Your task to perform on an android device: Is it going to rain tomorrow? Image 0: 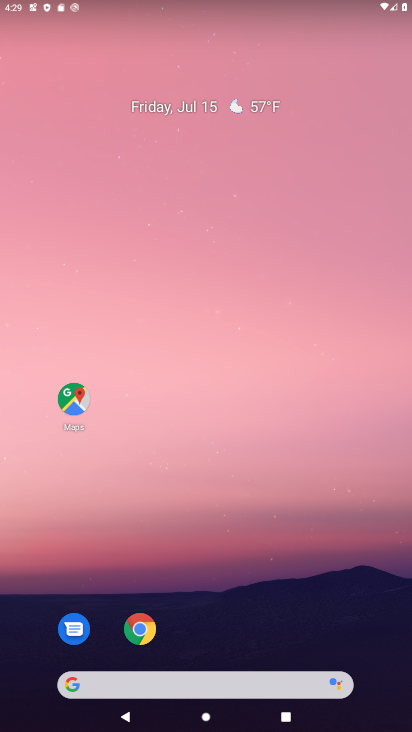
Step 0: click (73, 682)
Your task to perform on an android device: Is it going to rain tomorrow? Image 1: 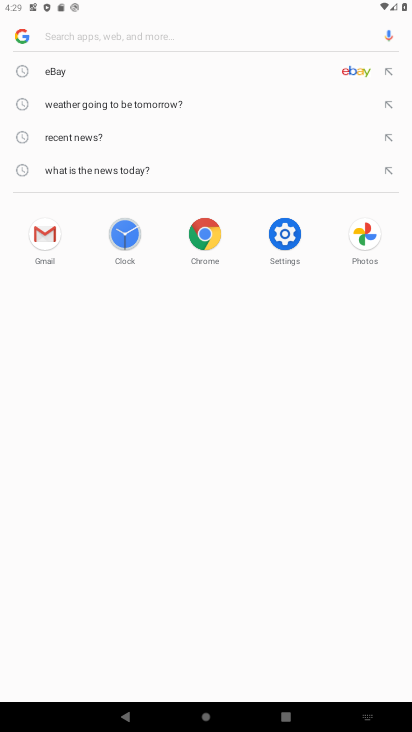
Step 1: type "rain tomorrow?"
Your task to perform on an android device: Is it going to rain tomorrow? Image 2: 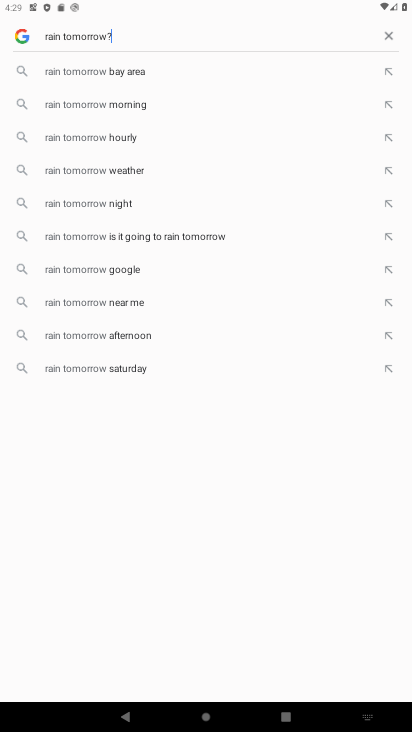
Step 2: press enter
Your task to perform on an android device: Is it going to rain tomorrow? Image 3: 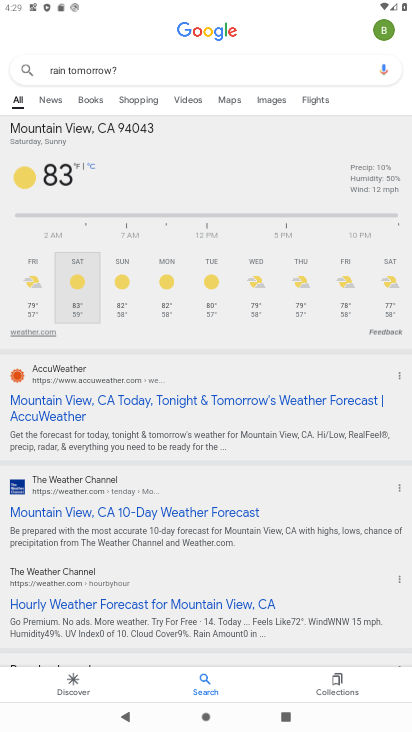
Step 3: task complete